Your task to perform on an android device: Open sound settings Image 0: 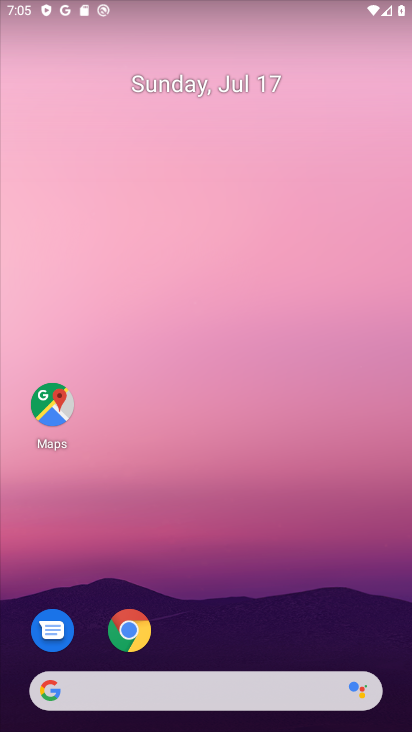
Step 0: drag from (192, 596) to (148, 150)
Your task to perform on an android device: Open sound settings Image 1: 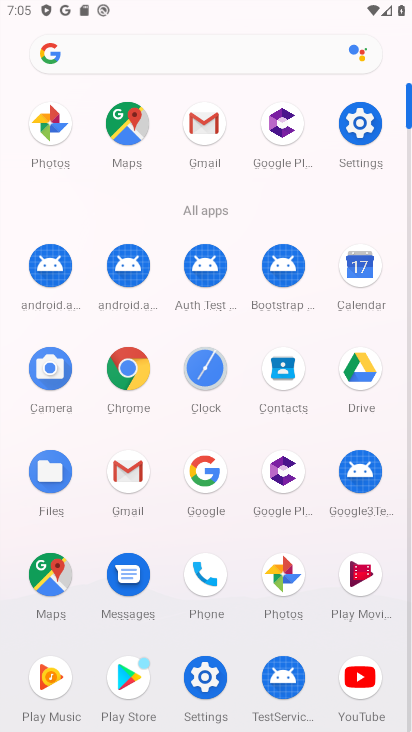
Step 1: click (366, 116)
Your task to perform on an android device: Open sound settings Image 2: 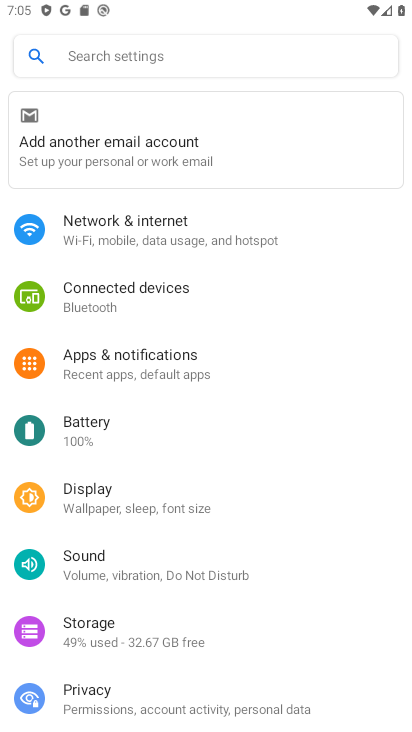
Step 2: click (88, 560)
Your task to perform on an android device: Open sound settings Image 3: 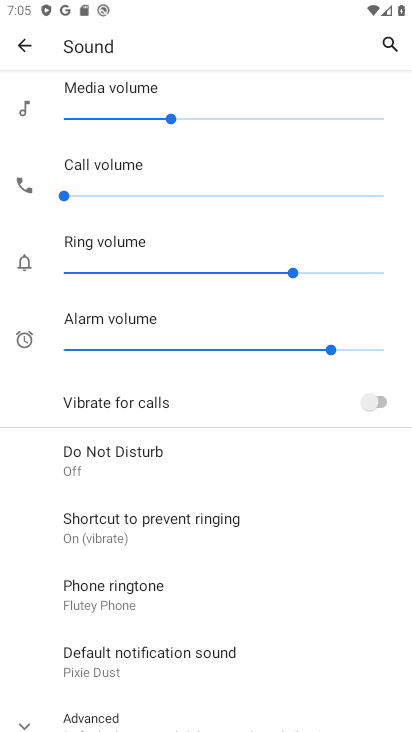
Step 3: task complete